Your task to perform on an android device: Is it going to rain today? Image 0: 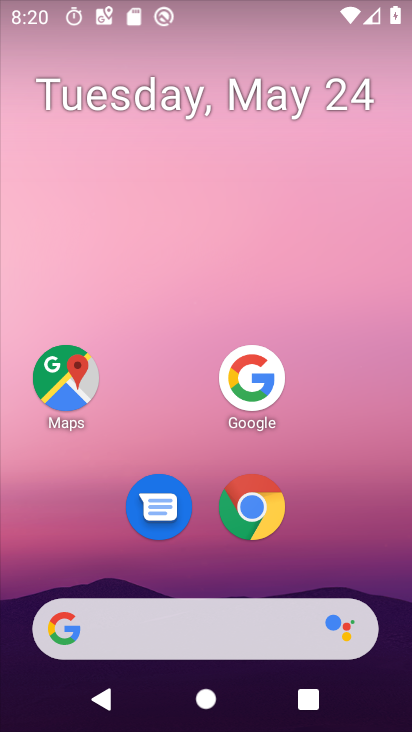
Step 0: press home button
Your task to perform on an android device: Is it going to rain today? Image 1: 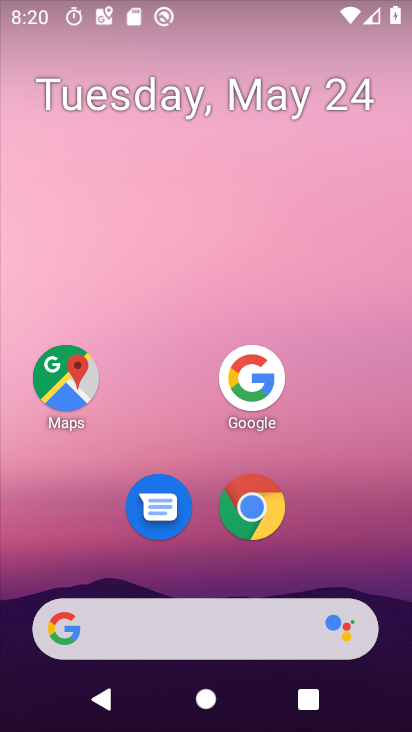
Step 1: click (73, 633)
Your task to perform on an android device: Is it going to rain today? Image 2: 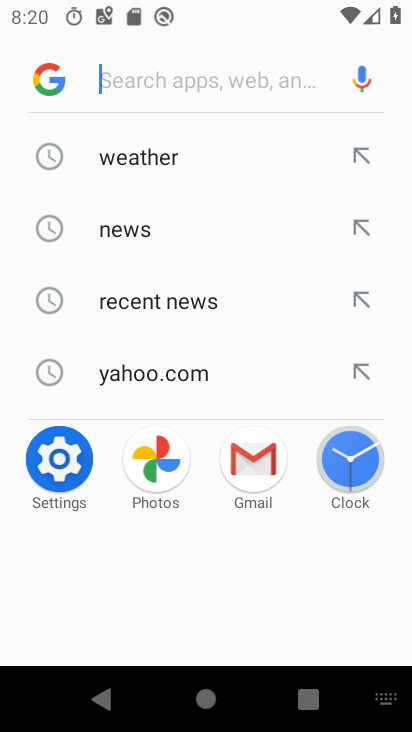
Step 2: click (152, 155)
Your task to perform on an android device: Is it going to rain today? Image 3: 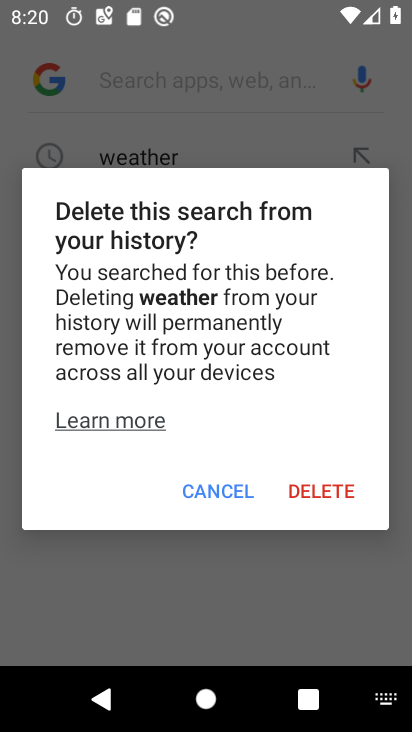
Step 3: click (187, 490)
Your task to perform on an android device: Is it going to rain today? Image 4: 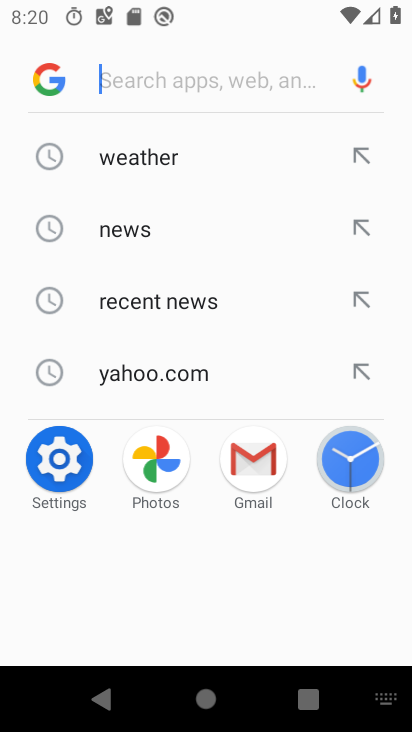
Step 4: click (164, 163)
Your task to perform on an android device: Is it going to rain today? Image 5: 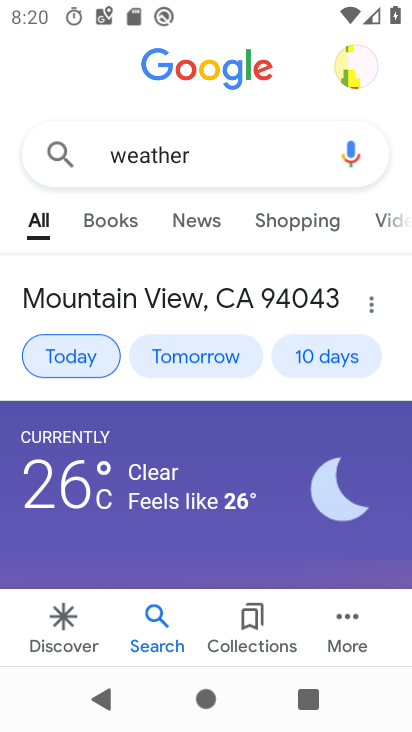
Step 5: task complete